Your task to perform on an android device: Open settings Image 0: 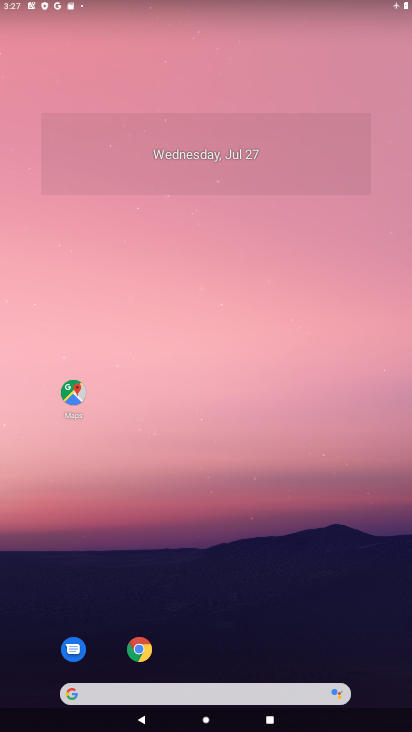
Step 0: drag from (240, 531) to (286, 223)
Your task to perform on an android device: Open settings Image 1: 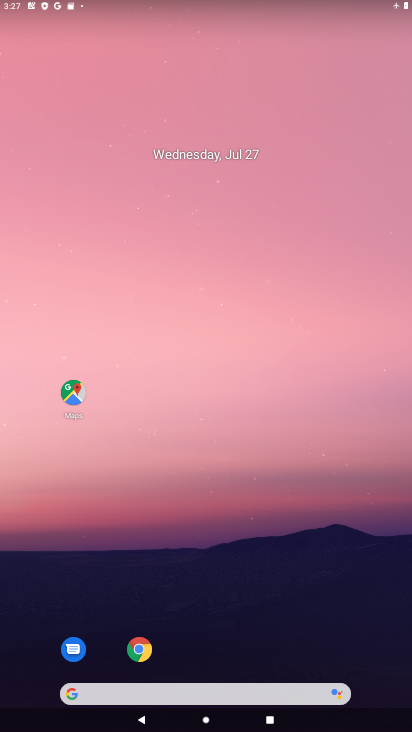
Step 1: drag from (260, 506) to (265, 91)
Your task to perform on an android device: Open settings Image 2: 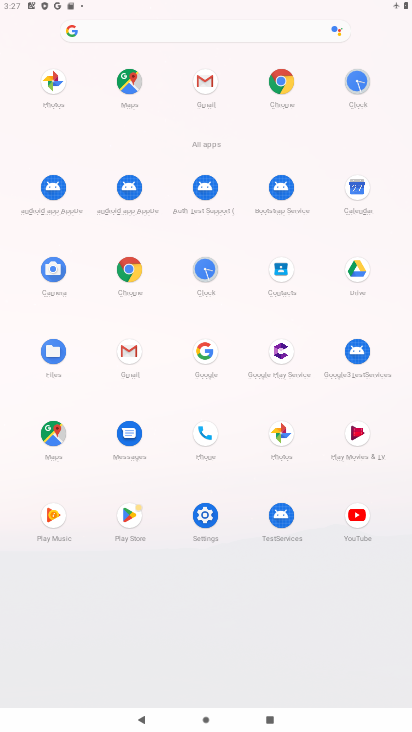
Step 2: click (199, 523)
Your task to perform on an android device: Open settings Image 3: 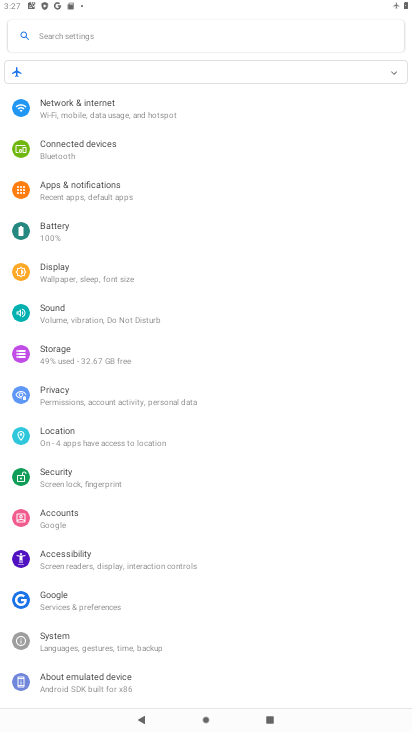
Step 3: task complete